Your task to perform on an android device: Open settings Image 0: 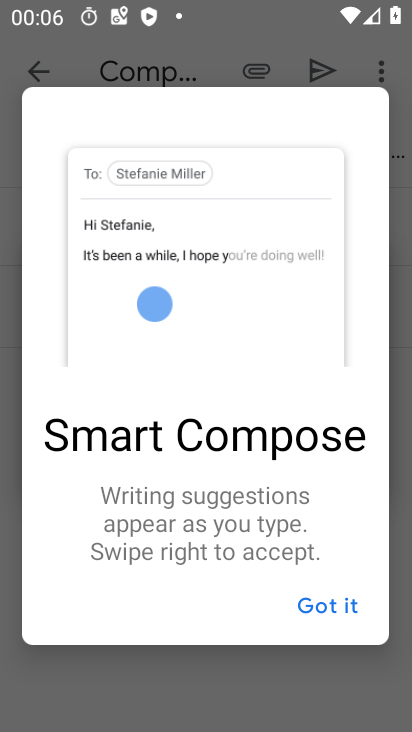
Step 0: press home button
Your task to perform on an android device: Open settings Image 1: 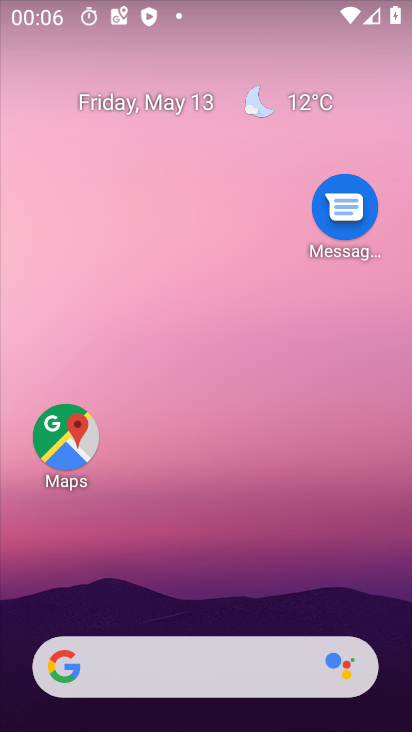
Step 1: drag from (310, 607) to (283, 79)
Your task to perform on an android device: Open settings Image 2: 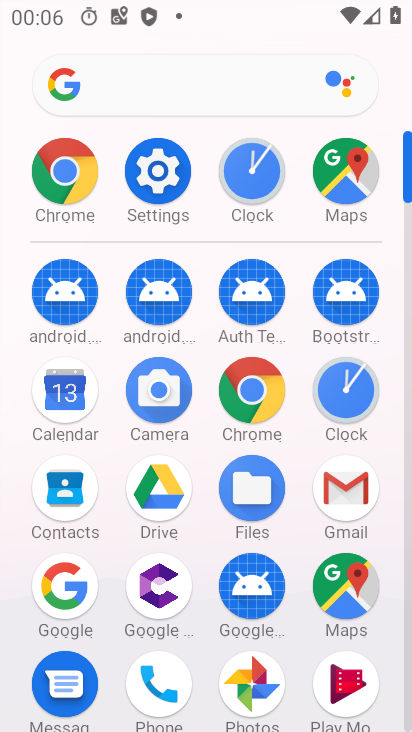
Step 2: click (157, 166)
Your task to perform on an android device: Open settings Image 3: 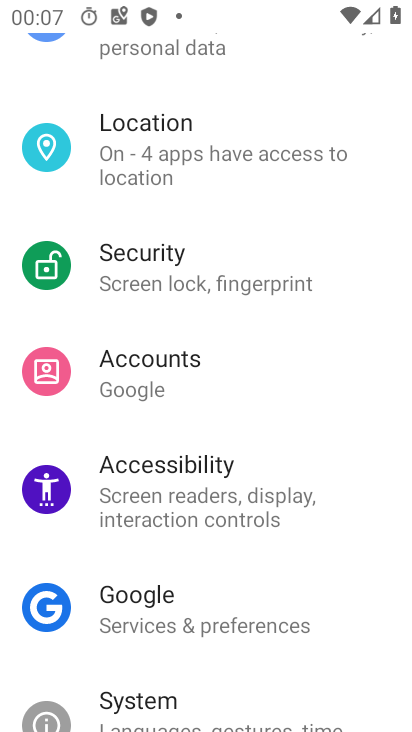
Step 3: task complete